Your task to perform on an android device: set the timer Image 0: 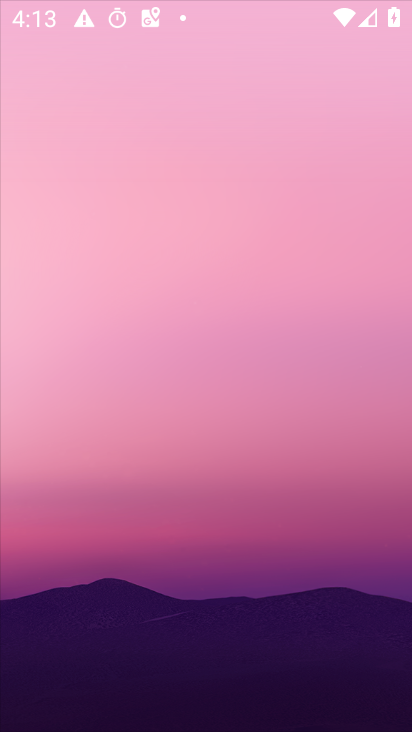
Step 0: drag from (161, 309) to (139, 131)
Your task to perform on an android device: set the timer Image 1: 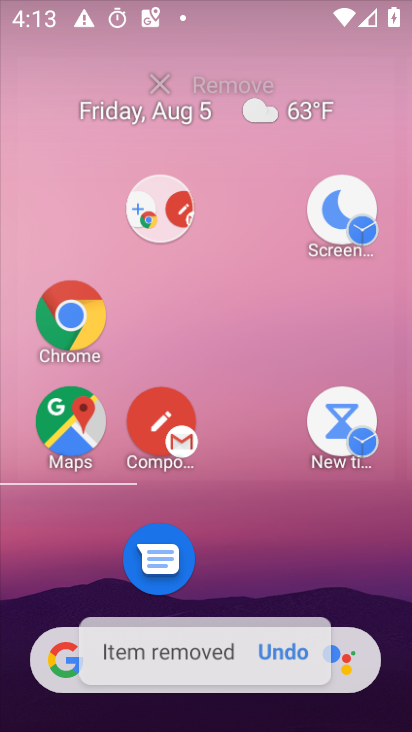
Step 1: drag from (276, 584) to (179, 5)
Your task to perform on an android device: set the timer Image 2: 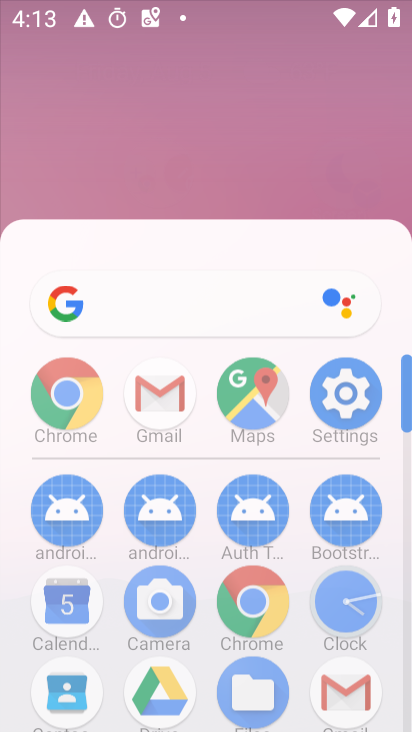
Step 2: drag from (211, 532) to (158, 144)
Your task to perform on an android device: set the timer Image 3: 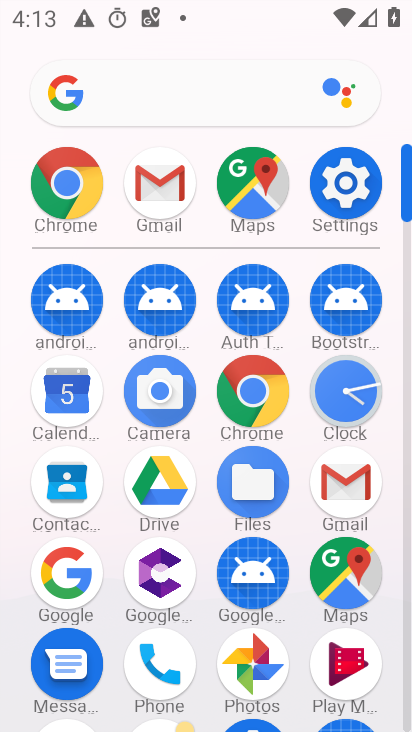
Step 3: click (339, 395)
Your task to perform on an android device: set the timer Image 4: 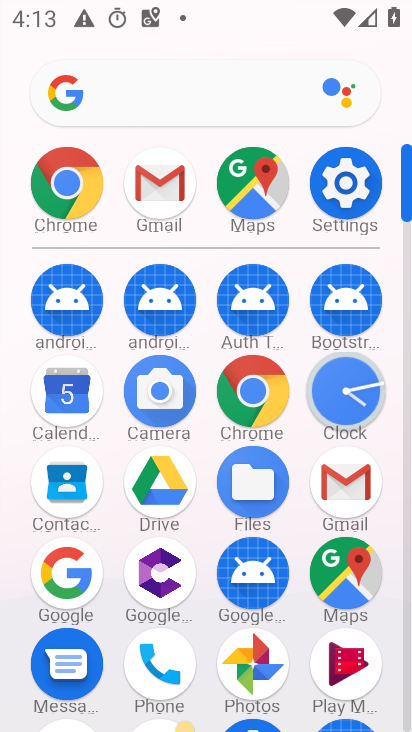
Step 4: click (366, 389)
Your task to perform on an android device: set the timer Image 5: 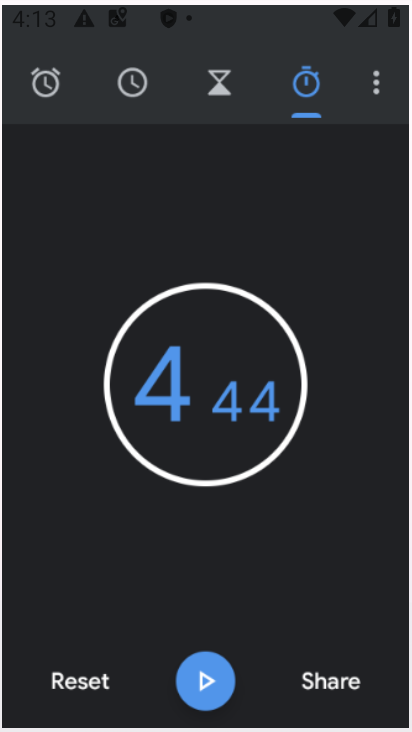
Step 5: click (360, 386)
Your task to perform on an android device: set the timer Image 6: 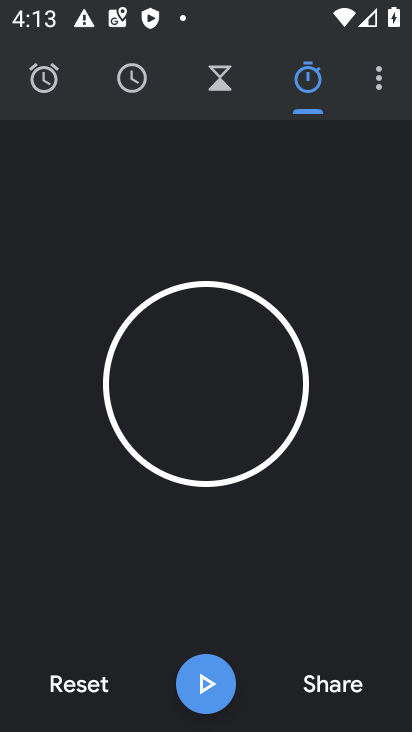
Step 6: click (359, 386)
Your task to perform on an android device: set the timer Image 7: 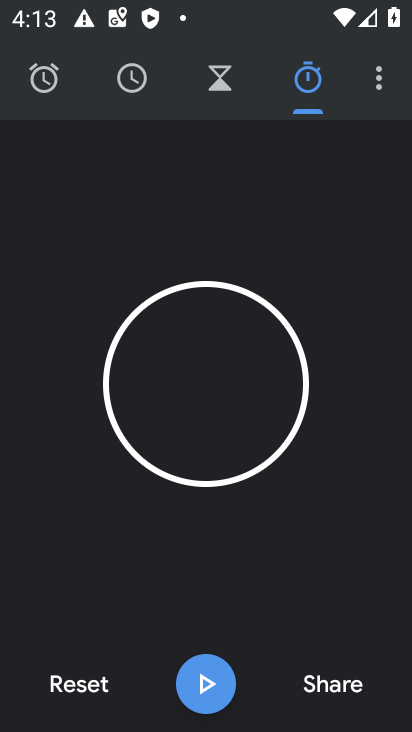
Step 7: click (202, 684)
Your task to perform on an android device: set the timer Image 8: 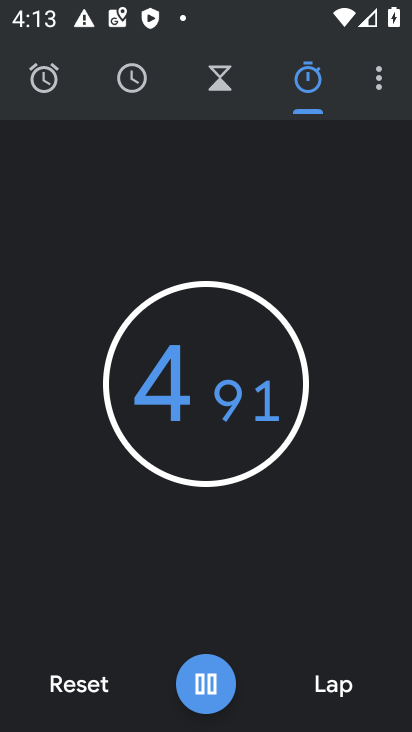
Step 8: click (213, 68)
Your task to perform on an android device: set the timer Image 9: 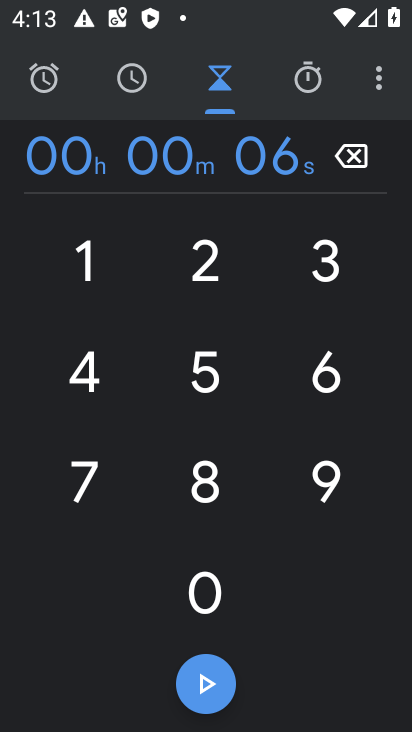
Step 9: click (213, 74)
Your task to perform on an android device: set the timer Image 10: 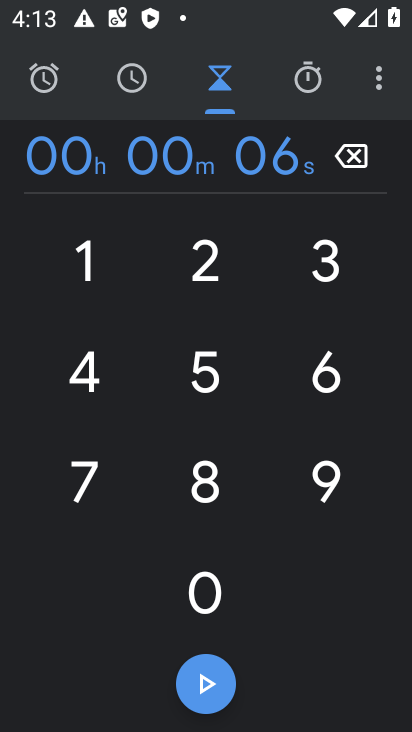
Step 10: click (204, 682)
Your task to perform on an android device: set the timer Image 11: 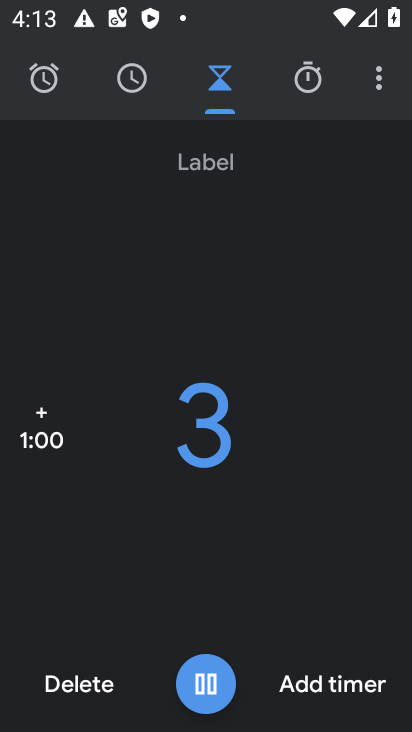
Step 11: click (195, 681)
Your task to perform on an android device: set the timer Image 12: 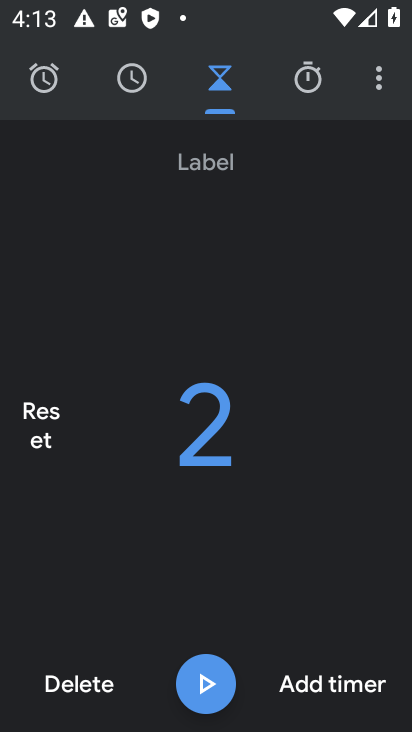
Step 12: task complete